Your task to perform on an android device: open sync settings in chrome Image 0: 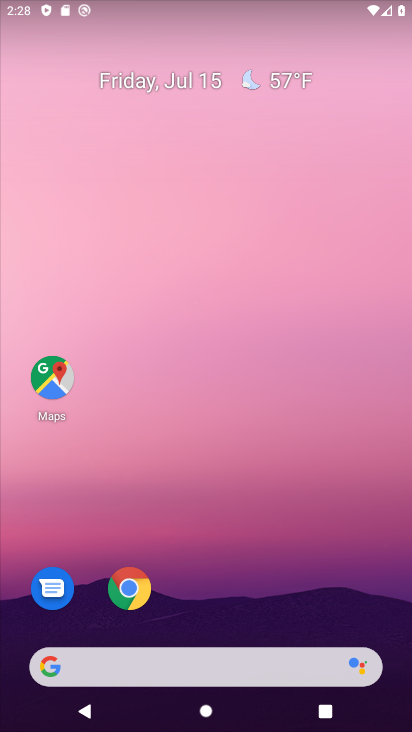
Step 0: click (131, 580)
Your task to perform on an android device: open sync settings in chrome Image 1: 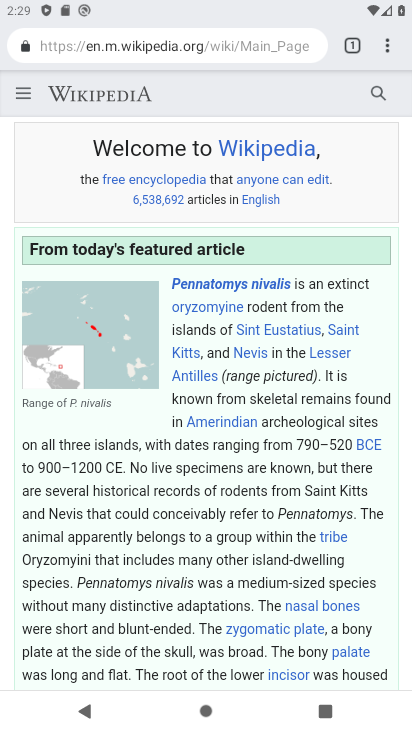
Step 1: click (391, 43)
Your task to perform on an android device: open sync settings in chrome Image 2: 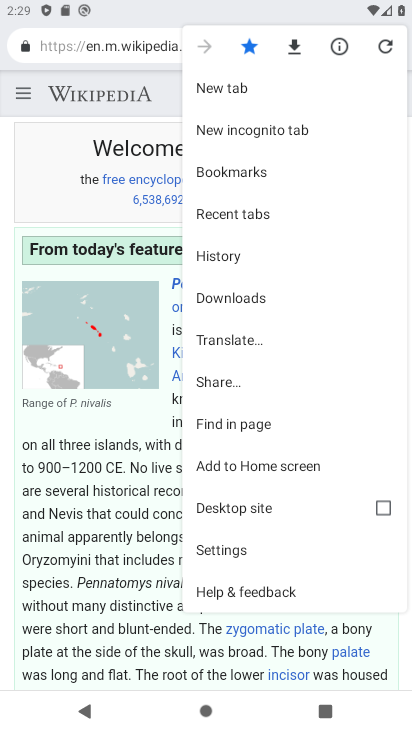
Step 2: click (234, 554)
Your task to perform on an android device: open sync settings in chrome Image 3: 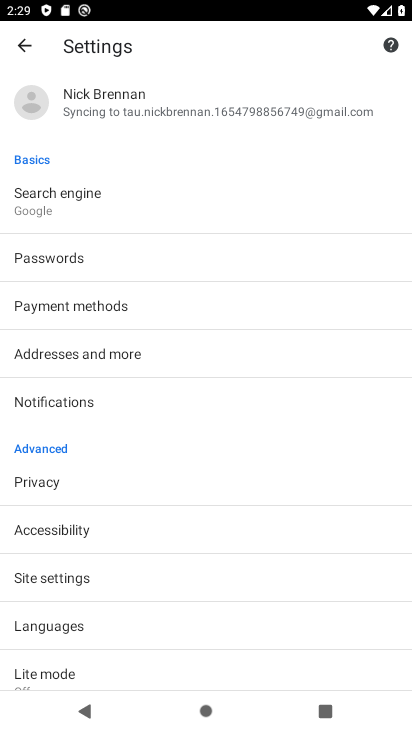
Step 3: click (100, 91)
Your task to perform on an android device: open sync settings in chrome Image 4: 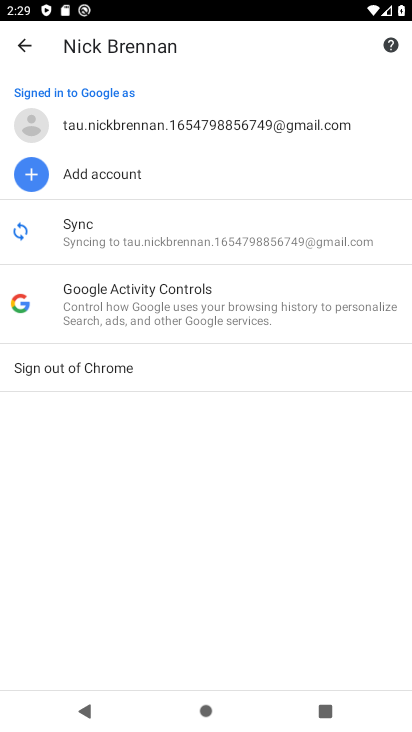
Step 4: click (93, 229)
Your task to perform on an android device: open sync settings in chrome Image 5: 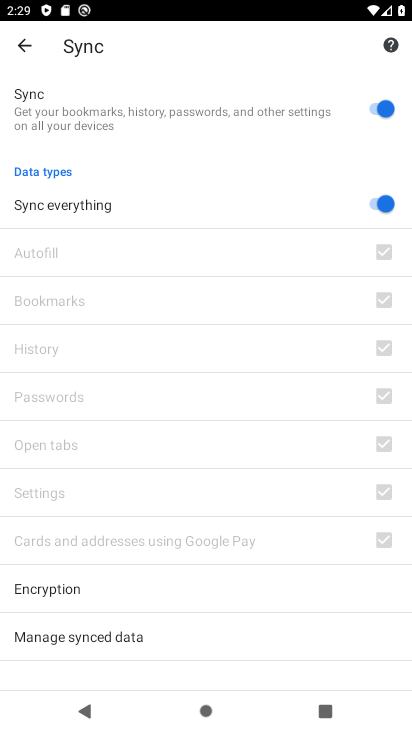
Step 5: task complete